Your task to perform on an android device: empty trash in the gmail app Image 0: 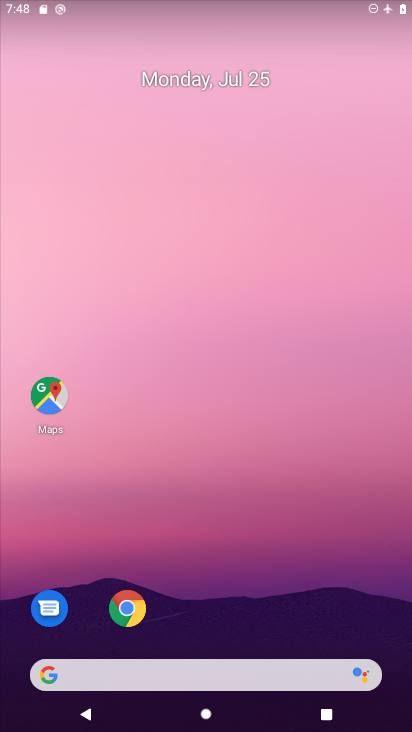
Step 0: drag from (335, 599) to (328, 96)
Your task to perform on an android device: empty trash in the gmail app Image 1: 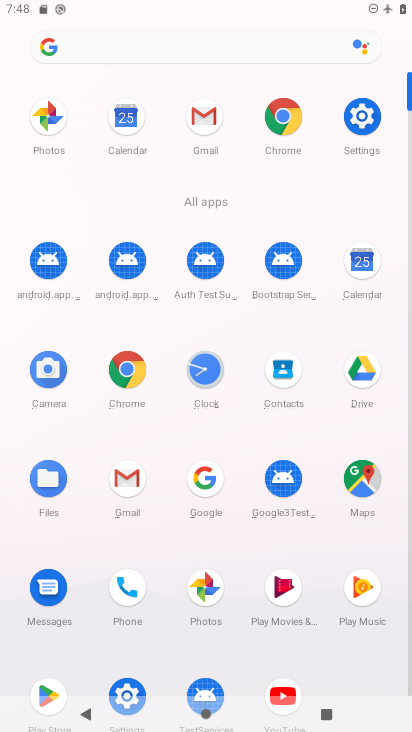
Step 1: click (199, 107)
Your task to perform on an android device: empty trash in the gmail app Image 2: 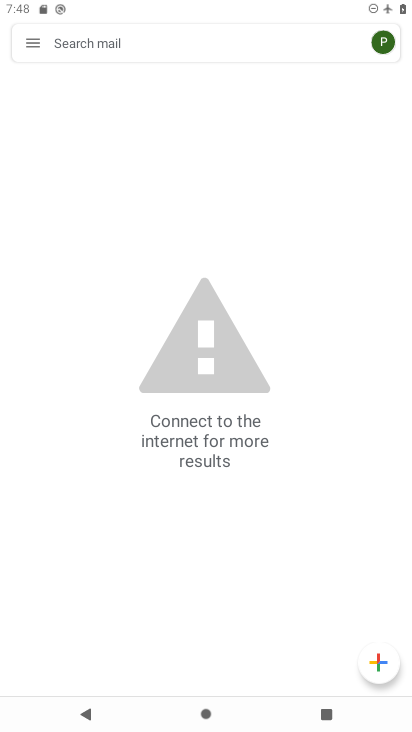
Step 2: click (37, 39)
Your task to perform on an android device: empty trash in the gmail app Image 3: 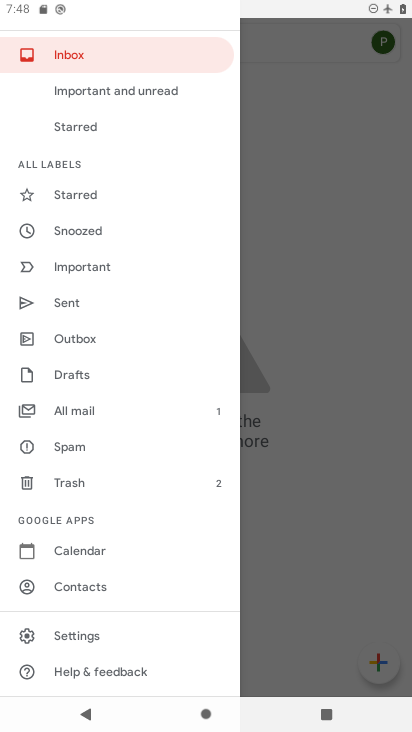
Step 3: click (84, 482)
Your task to perform on an android device: empty trash in the gmail app Image 4: 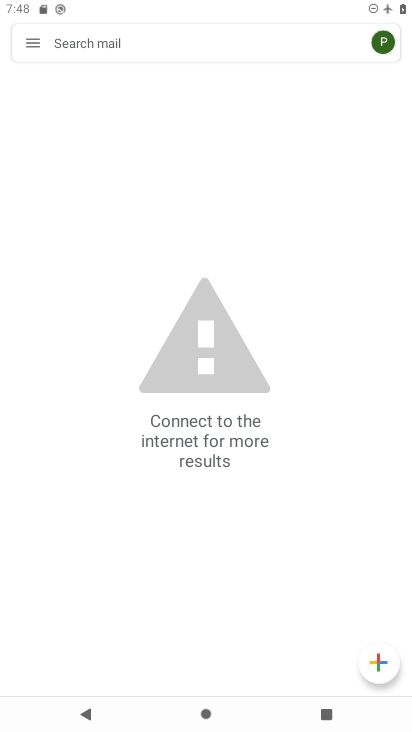
Step 4: task complete